Your task to perform on an android device: change notification settings in the gmail app Image 0: 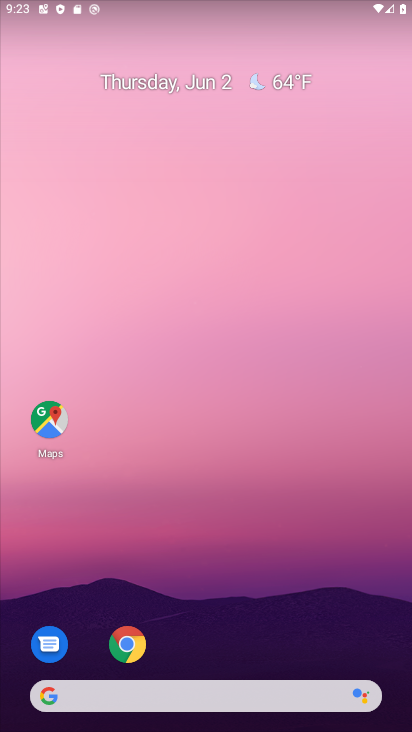
Step 0: press home button
Your task to perform on an android device: change notification settings in the gmail app Image 1: 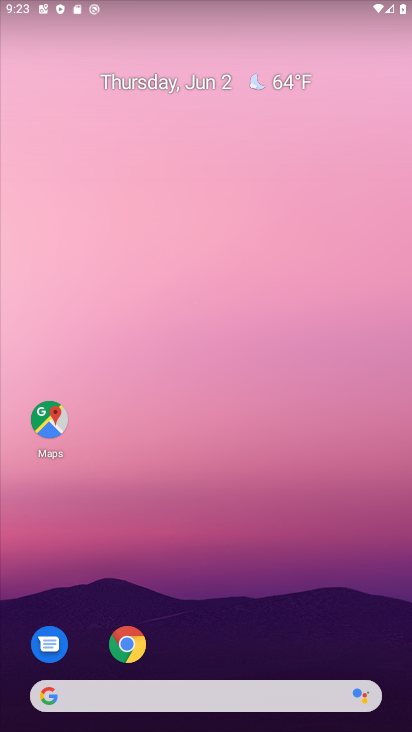
Step 1: drag from (337, 629) to (269, 41)
Your task to perform on an android device: change notification settings in the gmail app Image 2: 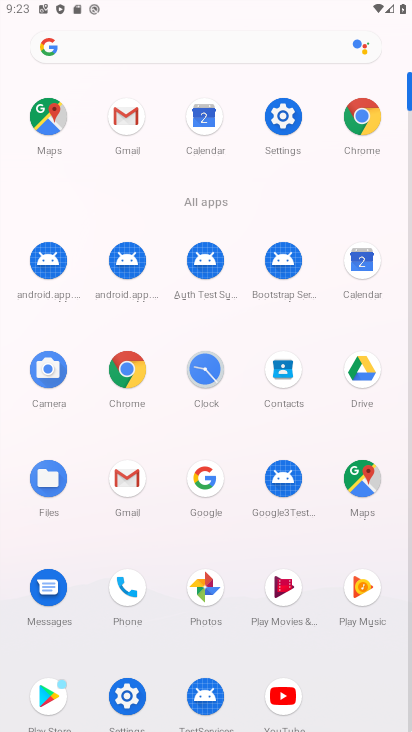
Step 2: click (113, 492)
Your task to perform on an android device: change notification settings in the gmail app Image 3: 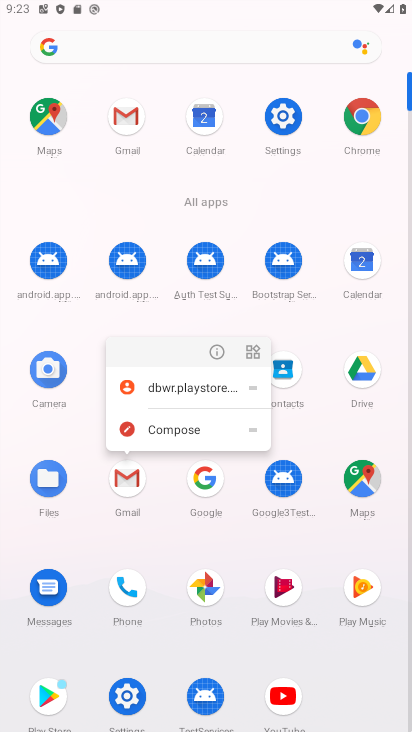
Step 3: click (206, 352)
Your task to perform on an android device: change notification settings in the gmail app Image 4: 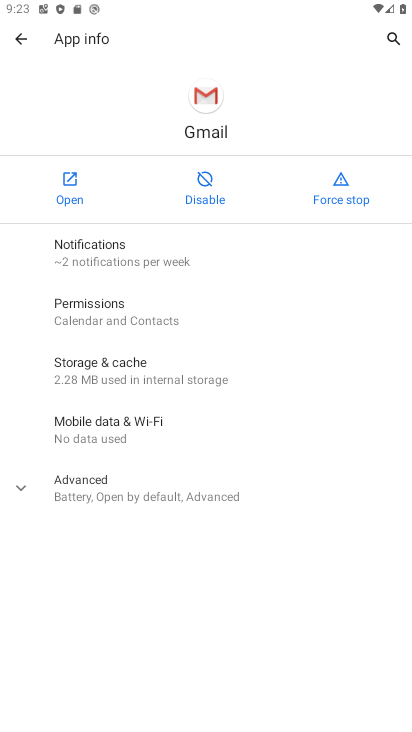
Step 4: click (99, 259)
Your task to perform on an android device: change notification settings in the gmail app Image 5: 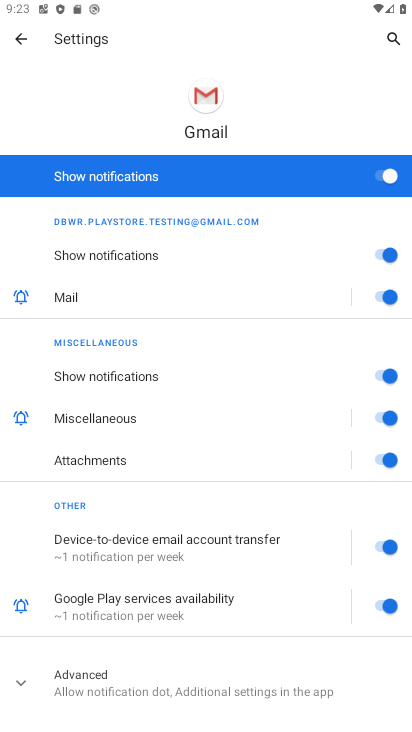
Step 5: click (321, 186)
Your task to perform on an android device: change notification settings in the gmail app Image 6: 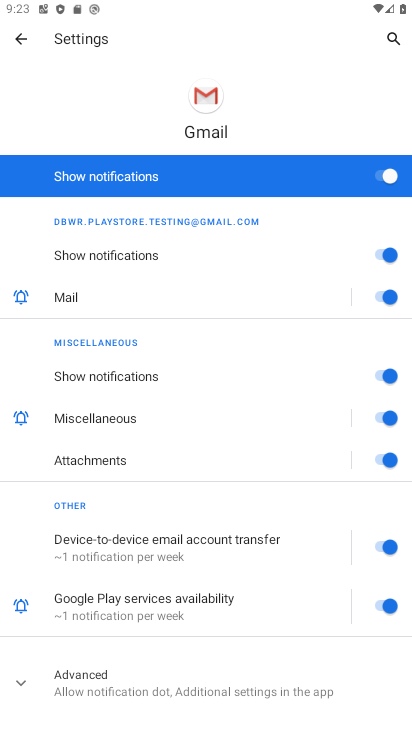
Step 6: click (242, 184)
Your task to perform on an android device: change notification settings in the gmail app Image 7: 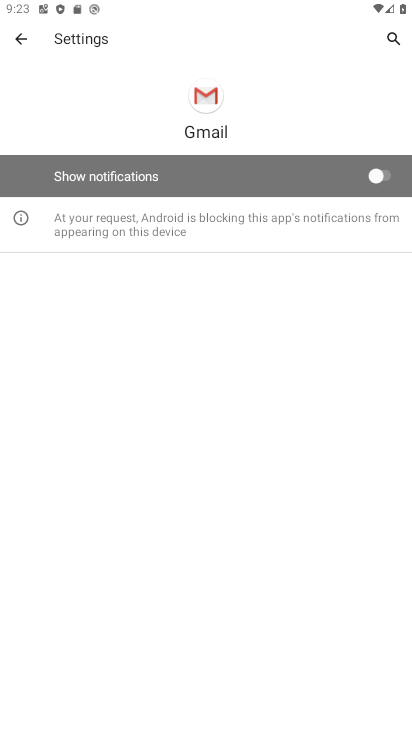
Step 7: task complete